Your task to perform on an android device: Show me popular games on the Play Store Image 0: 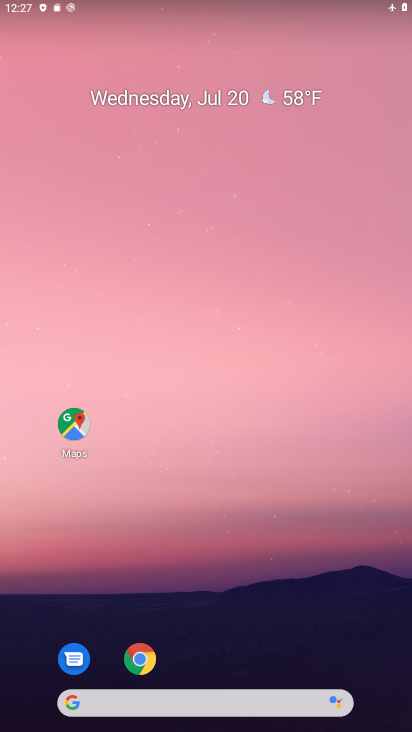
Step 0: press home button
Your task to perform on an android device: Show me popular games on the Play Store Image 1: 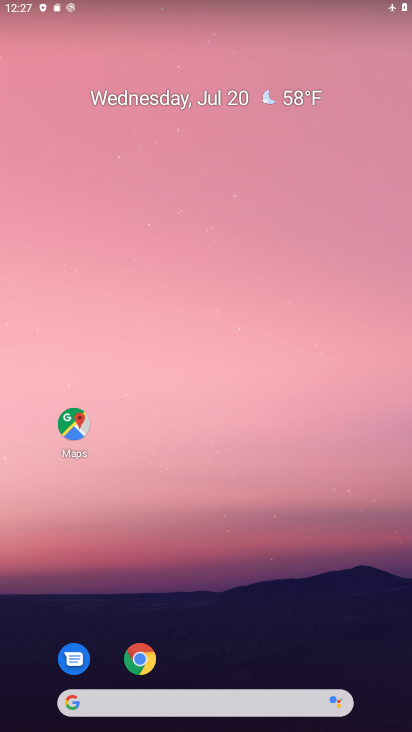
Step 1: drag from (230, 666) to (262, 11)
Your task to perform on an android device: Show me popular games on the Play Store Image 2: 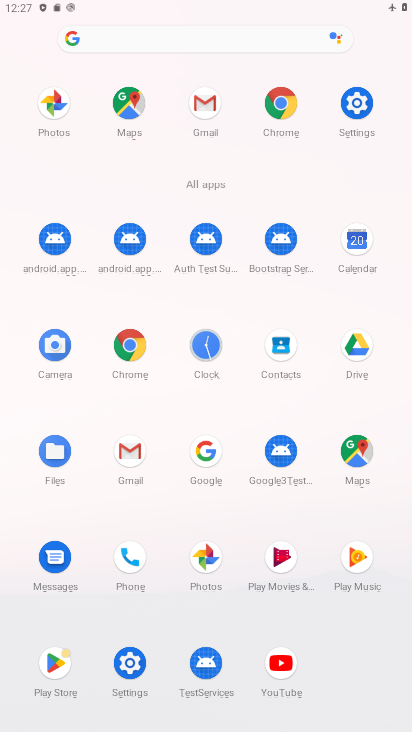
Step 2: click (51, 658)
Your task to perform on an android device: Show me popular games on the Play Store Image 3: 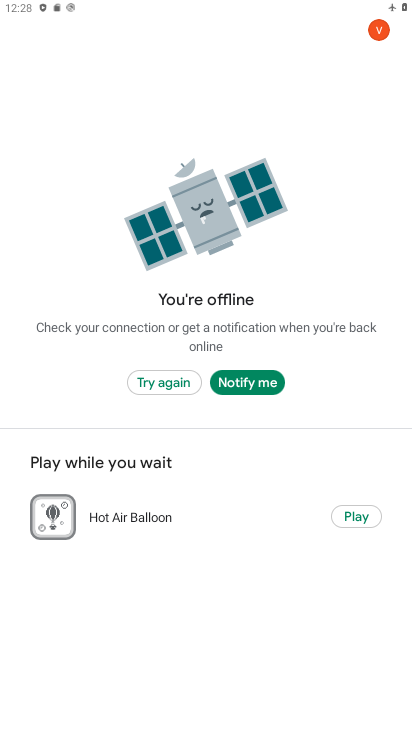
Step 3: click (169, 384)
Your task to perform on an android device: Show me popular games on the Play Store Image 4: 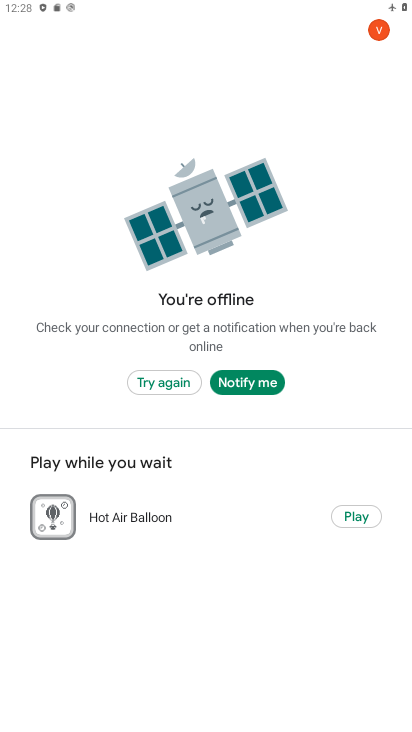
Step 4: click (163, 383)
Your task to perform on an android device: Show me popular games on the Play Store Image 5: 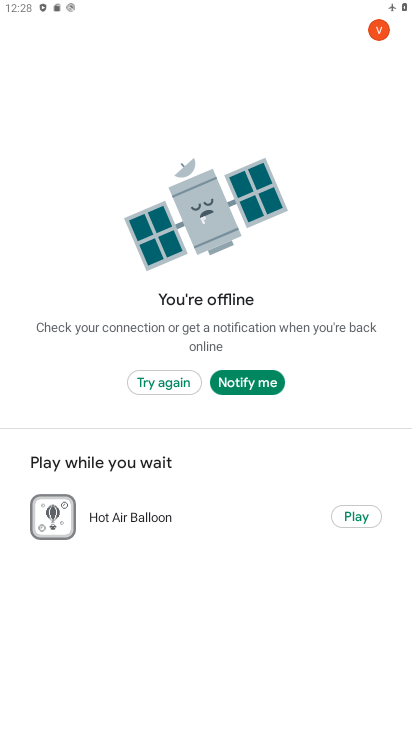
Step 5: task complete